Your task to perform on an android device: toggle wifi Image 0: 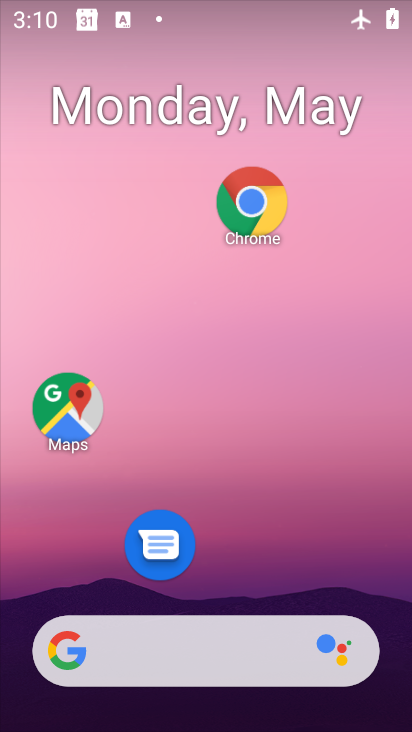
Step 0: drag from (228, 595) to (229, 173)
Your task to perform on an android device: toggle wifi Image 1: 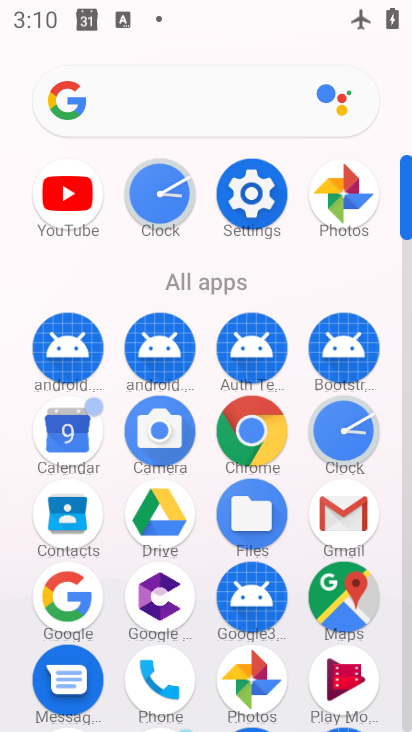
Step 1: click (229, 153)
Your task to perform on an android device: toggle wifi Image 2: 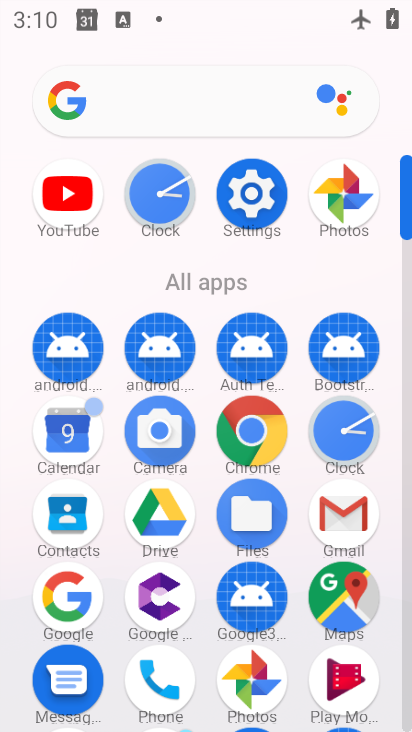
Step 2: click (247, 183)
Your task to perform on an android device: toggle wifi Image 3: 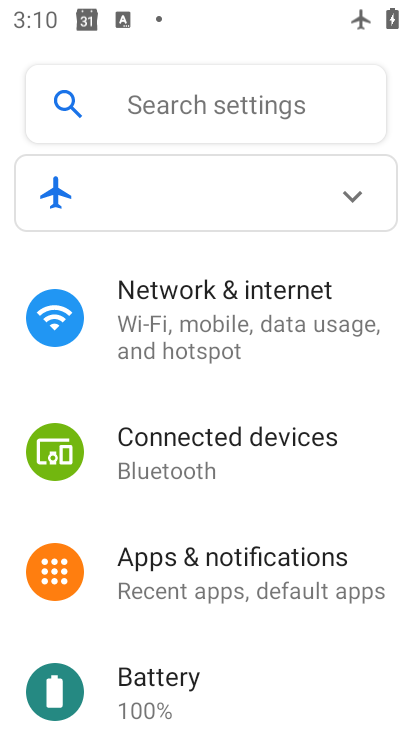
Step 3: click (210, 345)
Your task to perform on an android device: toggle wifi Image 4: 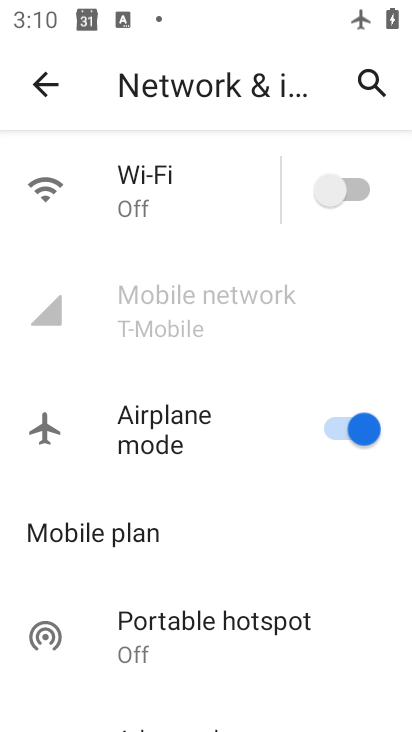
Step 4: click (360, 171)
Your task to perform on an android device: toggle wifi Image 5: 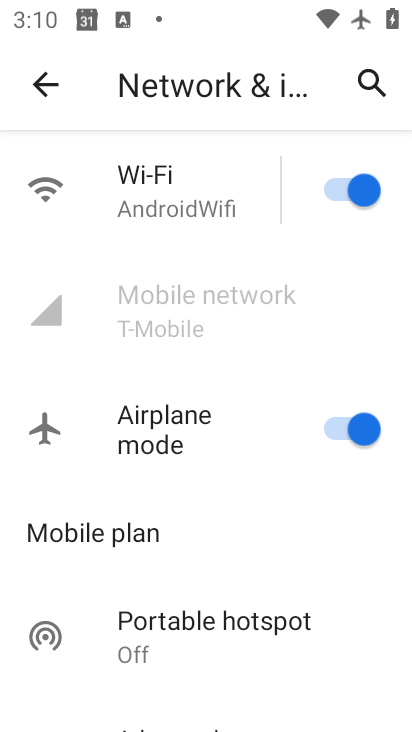
Step 5: task complete